Your task to perform on an android device: toggle notifications settings in the gmail app Image 0: 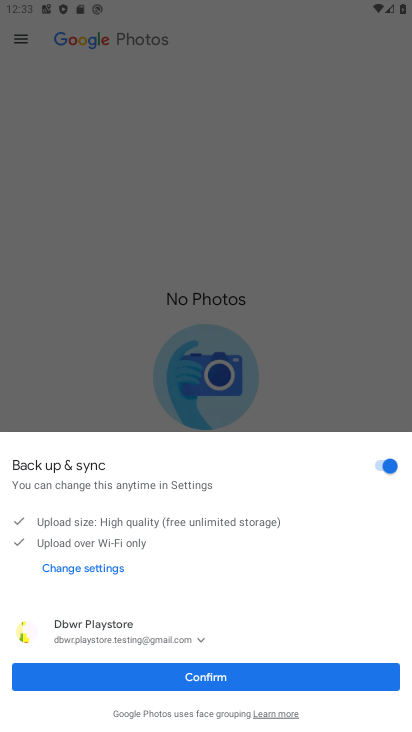
Step 0: click (231, 664)
Your task to perform on an android device: toggle notifications settings in the gmail app Image 1: 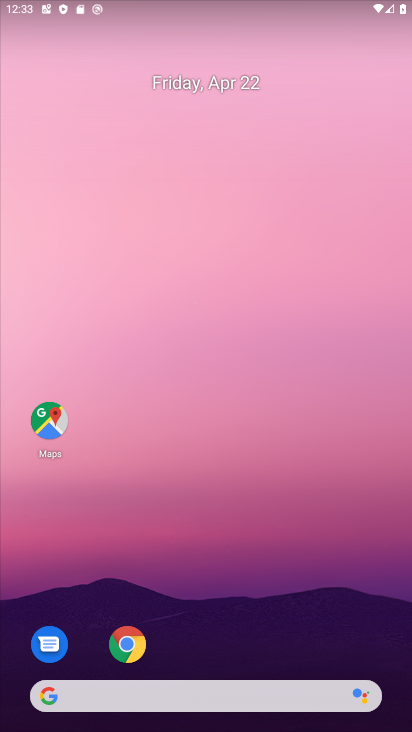
Step 1: drag from (248, 688) to (257, 579)
Your task to perform on an android device: toggle notifications settings in the gmail app Image 2: 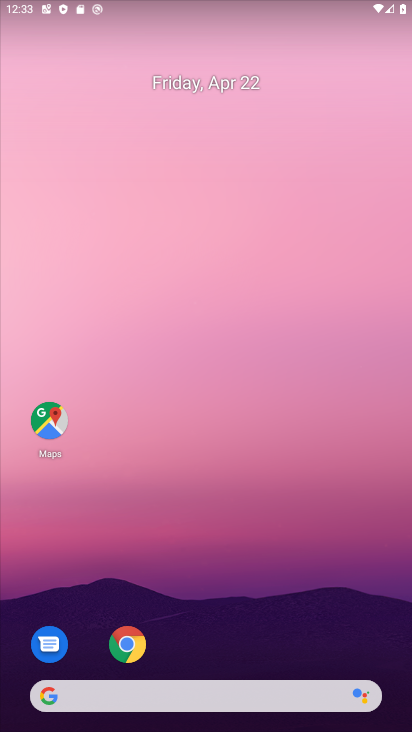
Step 2: drag from (273, 602) to (242, 127)
Your task to perform on an android device: toggle notifications settings in the gmail app Image 3: 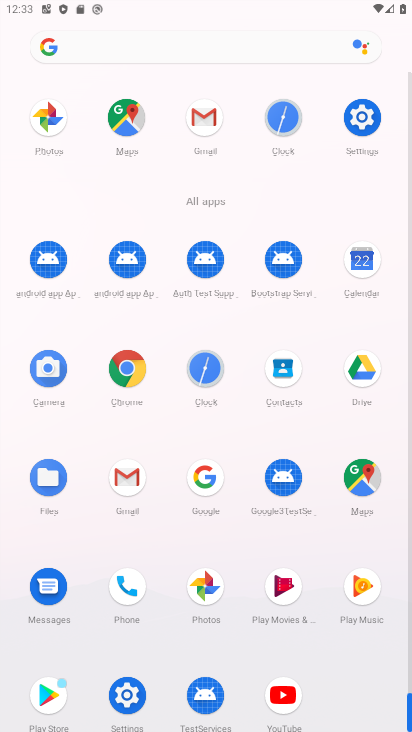
Step 3: click (209, 105)
Your task to perform on an android device: toggle notifications settings in the gmail app Image 4: 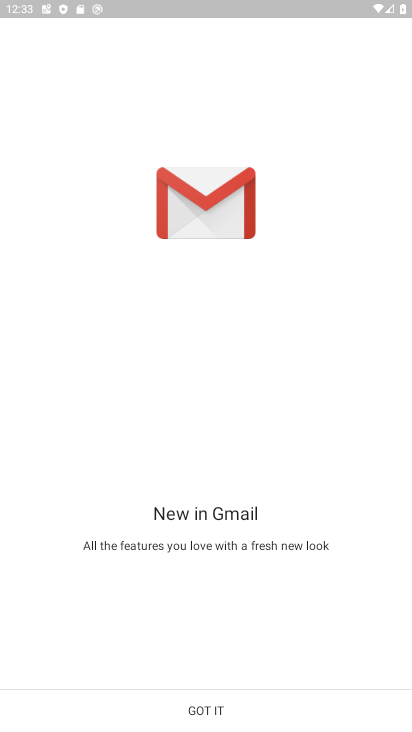
Step 4: click (237, 695)
Your task to perform on an android device: toggle notifications settings in the gmail app Image 5: 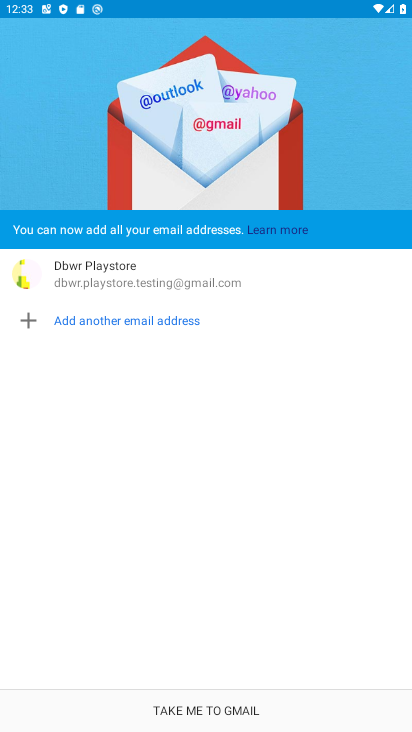
Step 5: click (214, 712)
Your task to perform on an android device: toggle notifications settings in the gmail app Image 6: 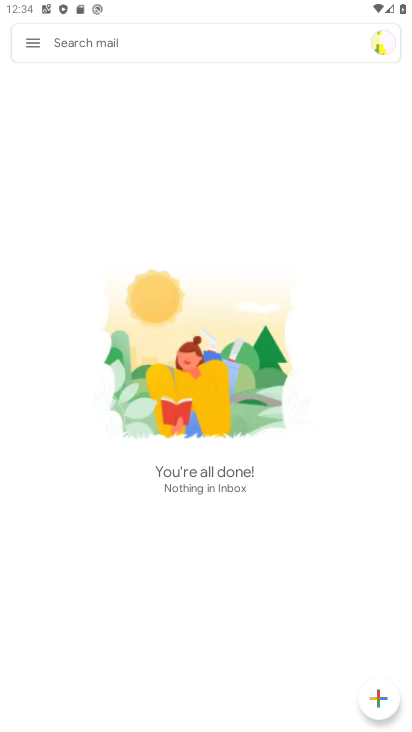
Step 6: click (35, 43)
Your task to perform on an android device: toggle notifications settings in the gmail app Image 7: 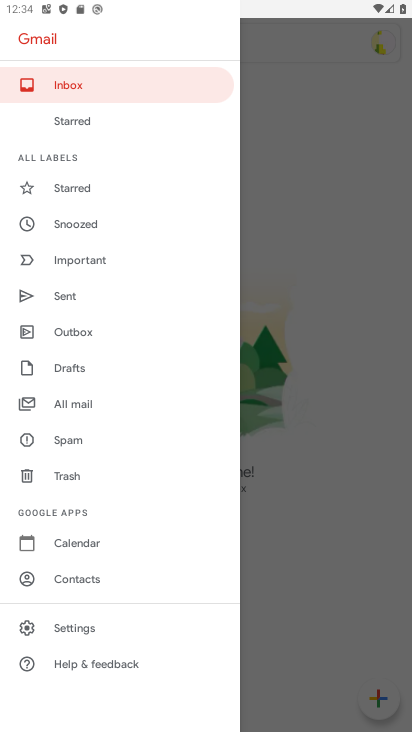
Step 7: click (85, 625)
Your task to perform on an android device: toggle notifications settings in the gmail app Image 8: 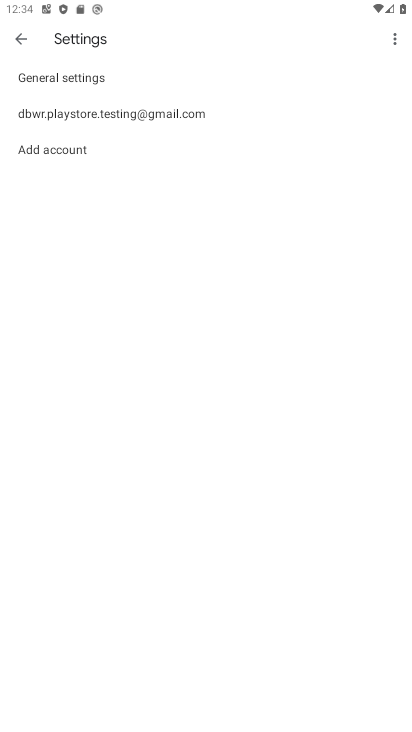
Step 8: click (128, 105)
Your task to perform on an android device: toggle notifications settings in the gmail app Image 9: 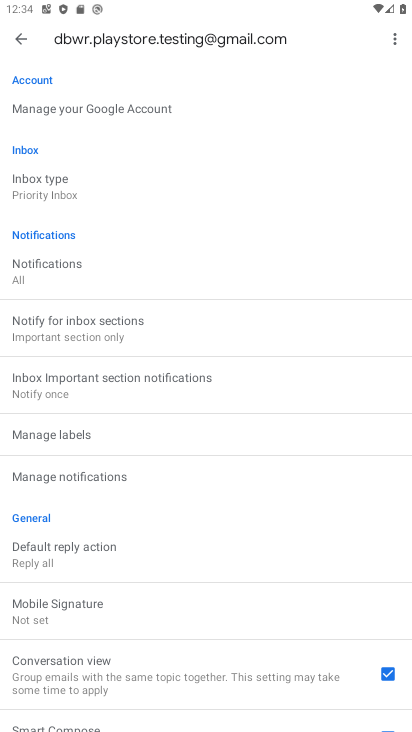
Step 9: drag from (186, 451) to (255, 181)
Your task to perform on an android device: toggle notifications settings in the gmail app Image 10: 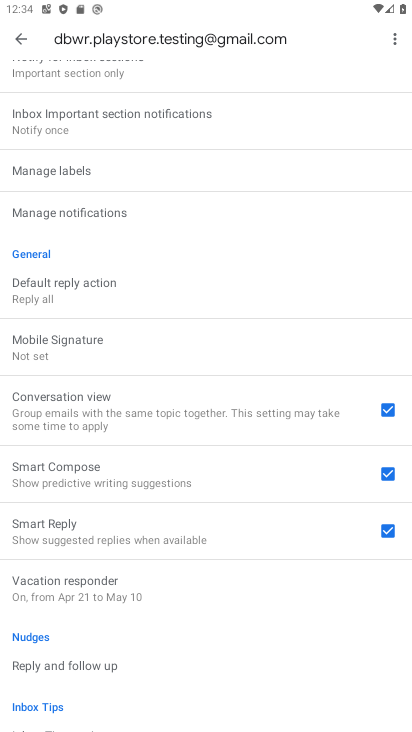
Step 10: drag from (256, 498) to (292, 231)
Your task to perform on an android device: toggle notifications settings in the gmail app Image 11: 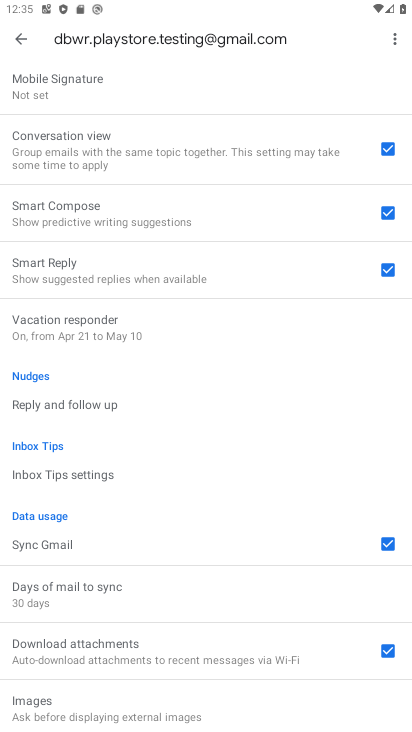
Step 11: drag from (84, 194) to (76, 514)
Your task to perform on an android device: toggle notifications settings in the gmail app Image 12: 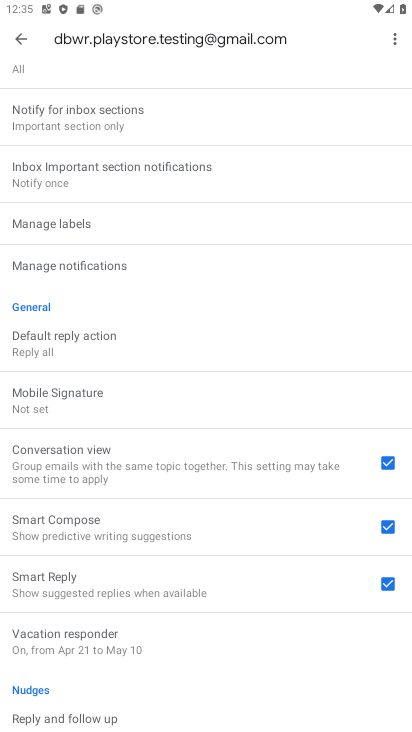
Step 12: drag from (109, 287) to (114, 551)
Your task to perform on an android device: toggle notifications settings in the gmail app Image 13: 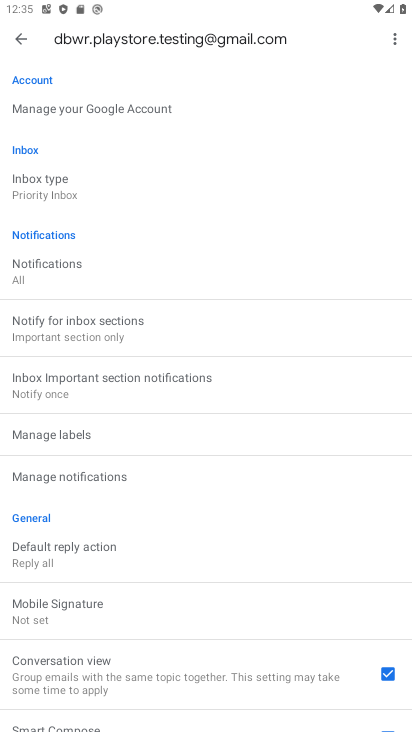
Step 13: drag from (189, 358) to (192, 618)
Your task to perform on an android device: toggle notifications settings in the gmail app Image 14: 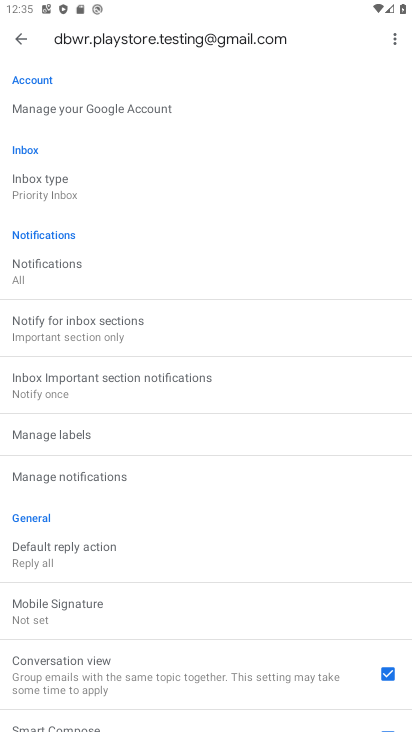
Step 14: click (46, 269)
Your task to perform on an android device: toggle notifications settings in the gmail app Image 15: 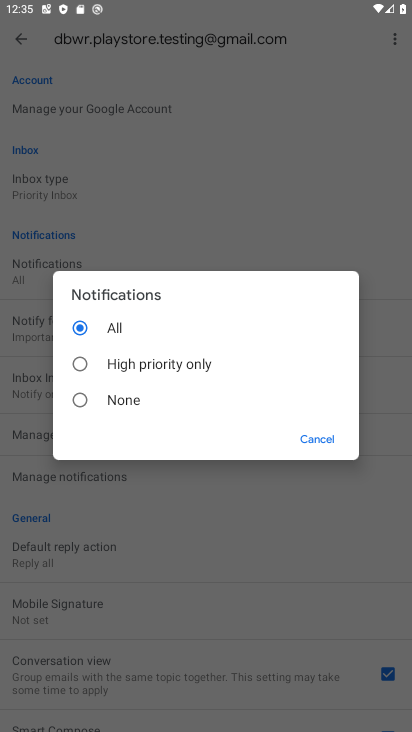
Step 15: click (80, 411)
Your task to perform on an android device: toggle notifications settings in the gmail app Image 16: 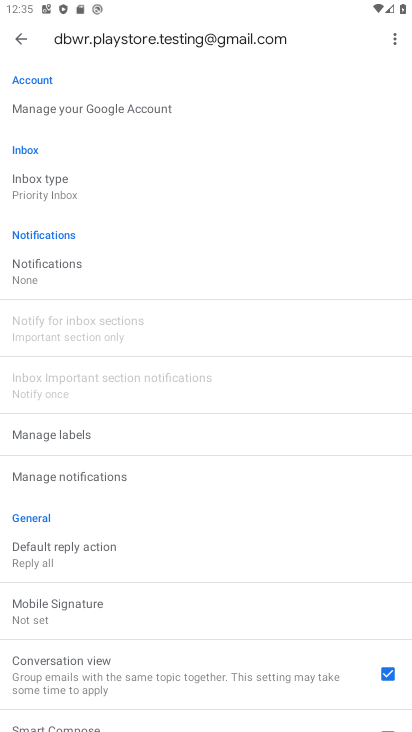
Step 16: click (73, 256)
Your task to perform on an android device: toggle notifications settings in the gmail app Image 17: 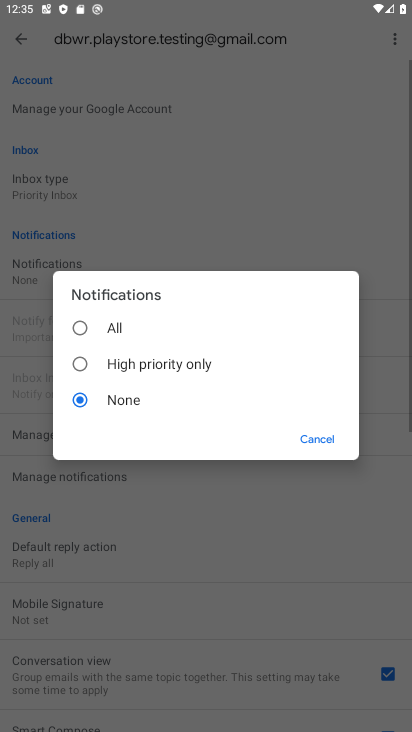
Step 17: click (78, 324)
Your task to perform on an android device: toggle notifications settings in the gmail app Image 18: 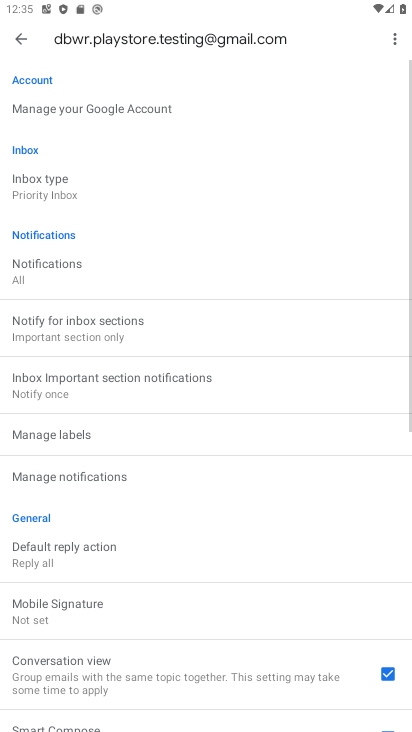
Step 18: task complete